Your task to perform on an android device: Search for Mexican restaurants on Maps Image 0: 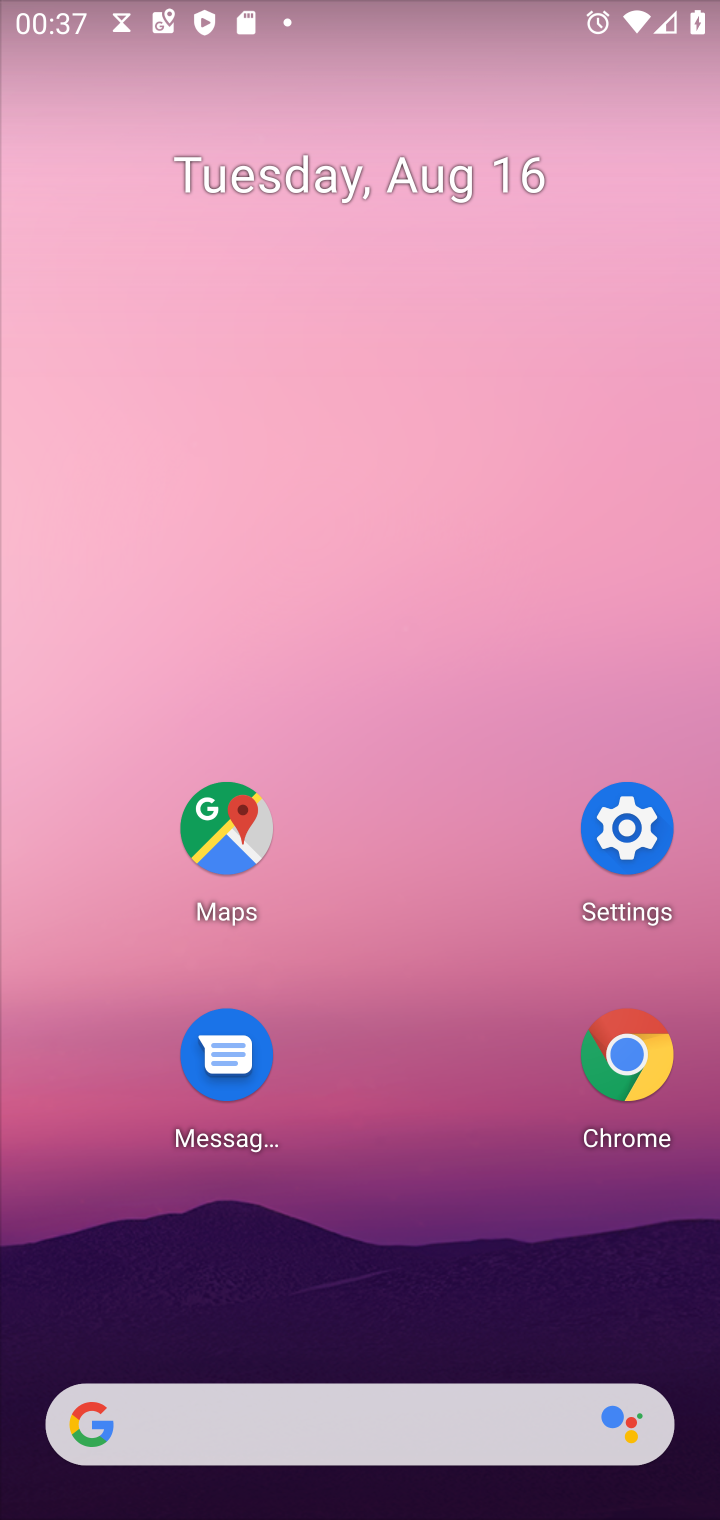
Step 0: press home button
Your task to perform on an android device: Search for Mexican restaurants on Maps Image 1: 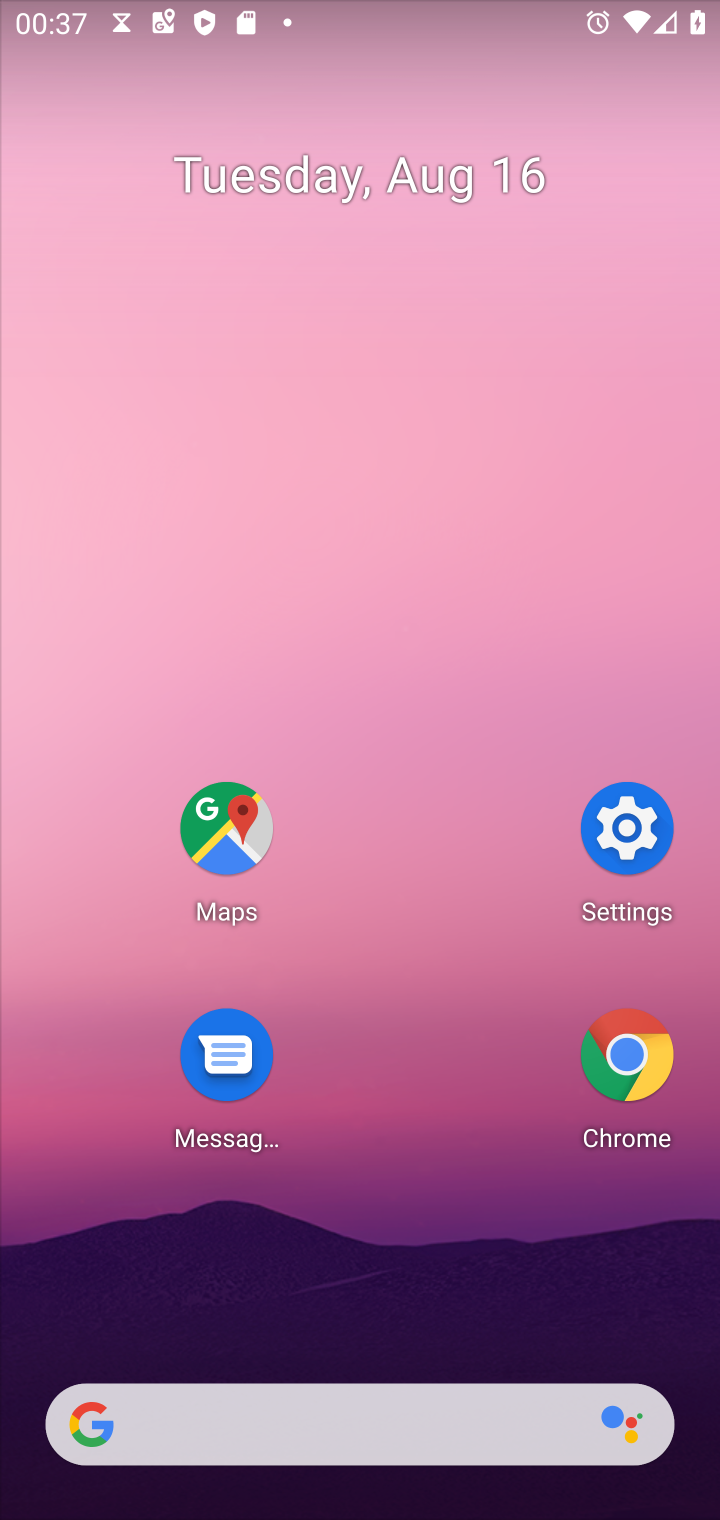
Step 1: click (227, 833)
Your task to perform on an android device: Search for Mexican restaurants on Maps Image 2: 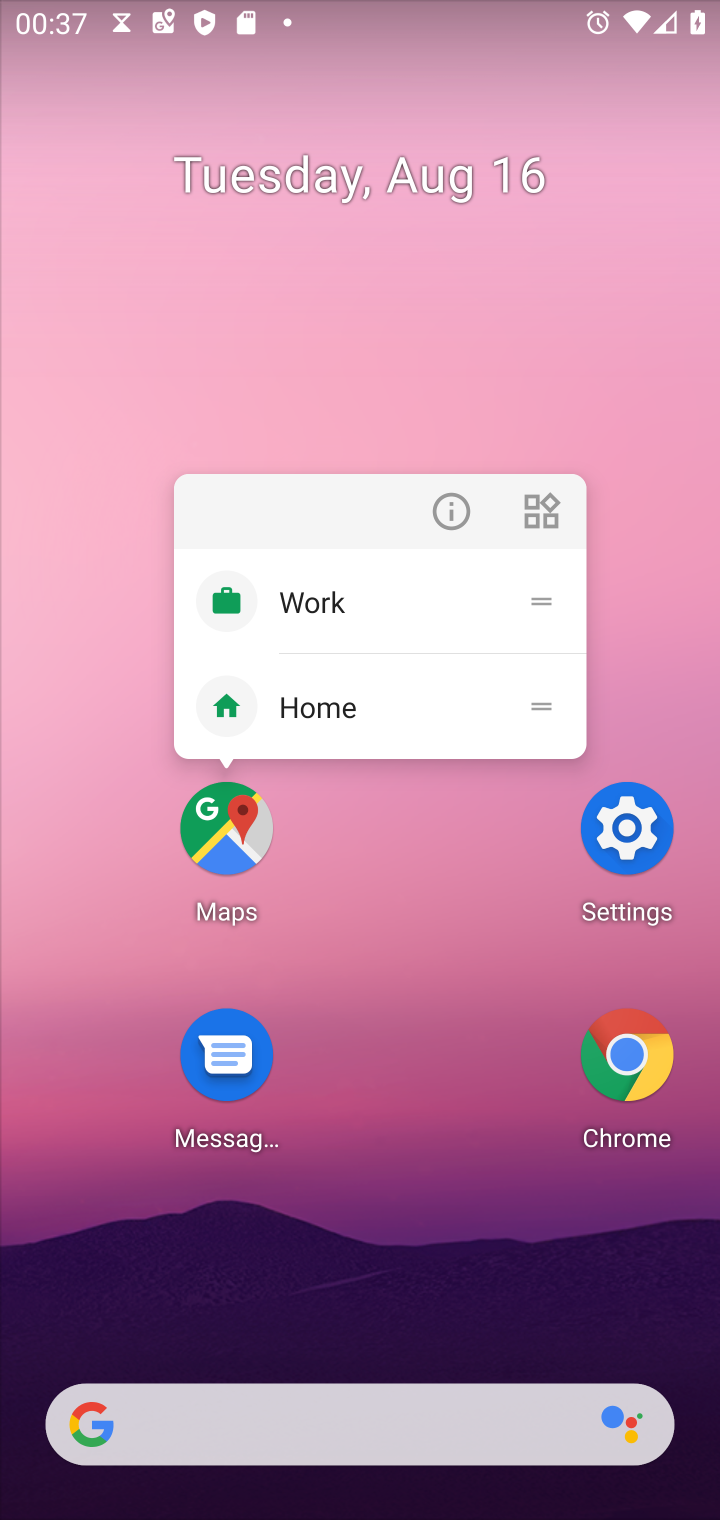
Step 2: click (227, 837)
Your task to perform on an android device: Search for Mexican restaurants on Maps Image 3: 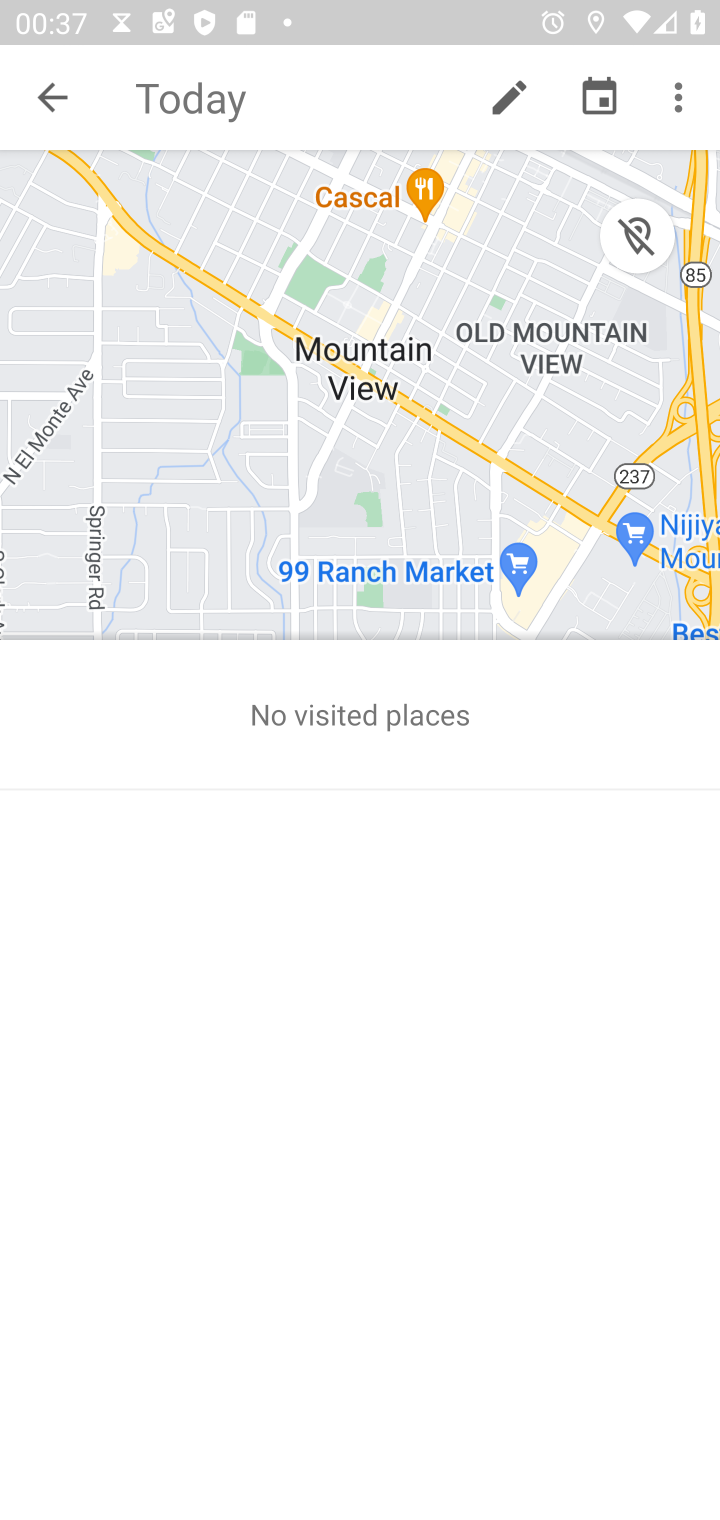
Step 3: press back button
Your task to perform on an android device: Search for Mexican restaurants on Maps Image 4: 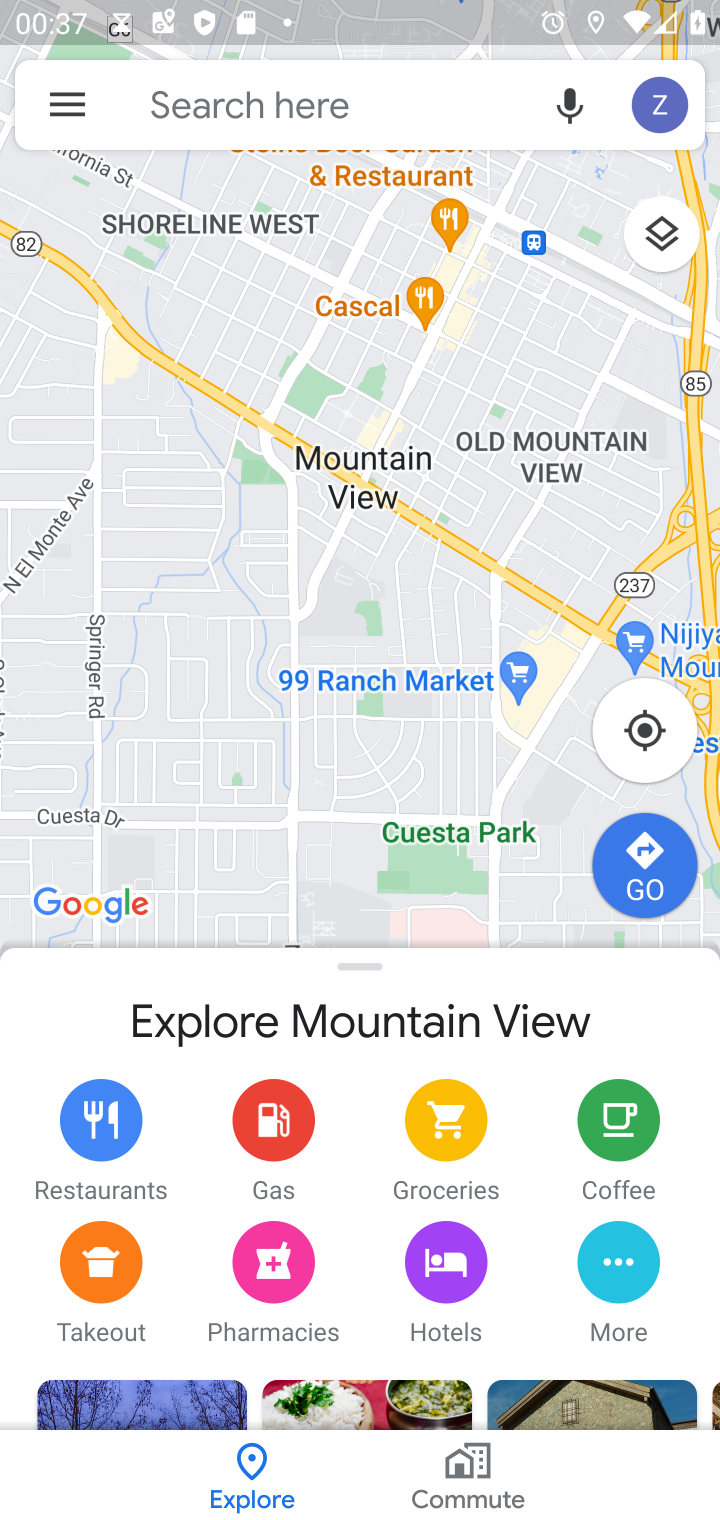
Step 4: click (353, 108)
Your task to perform on an android device: Search for Mexican restaurants on Maps Image 5: 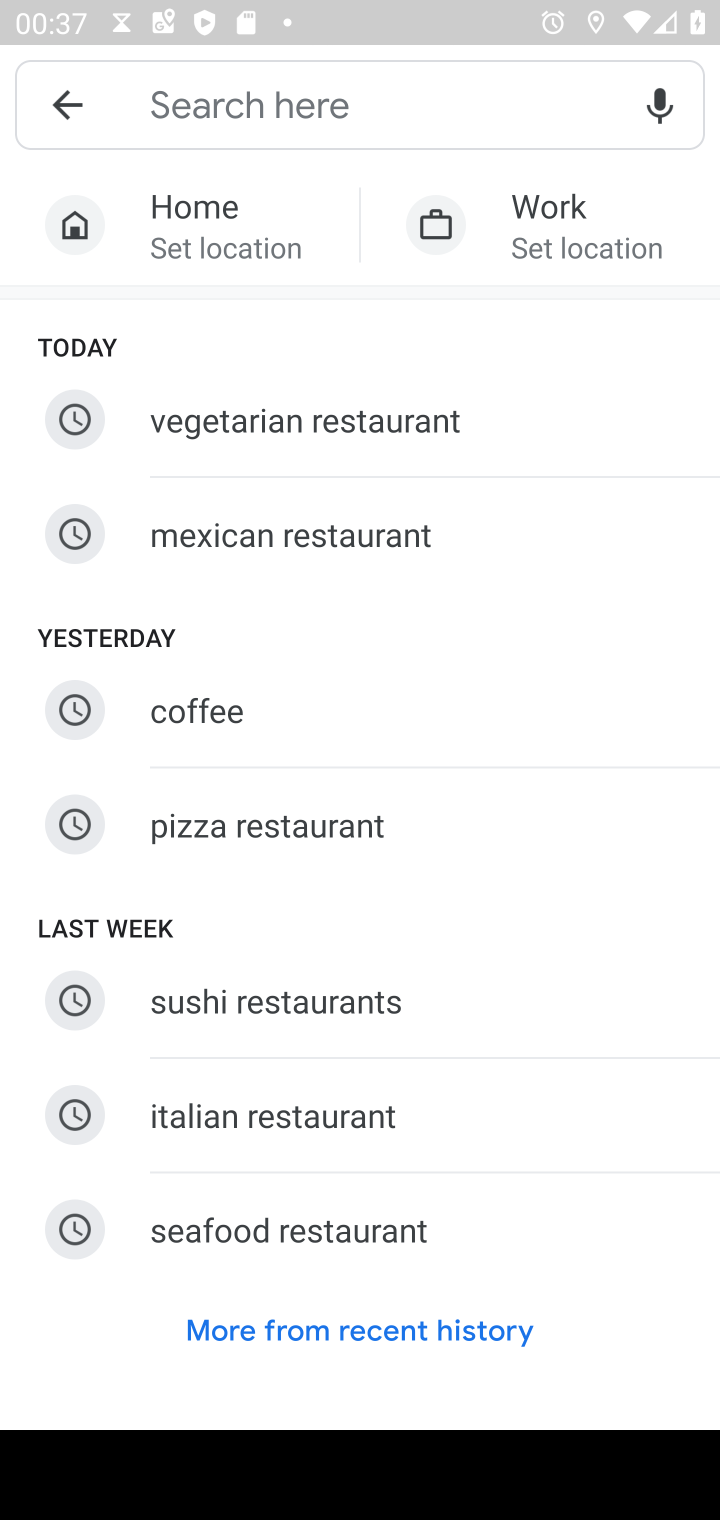
Step 5: click (339, 536)
Your task to perform on an android device: Search for Mexican restaurants on Maps Image 6: 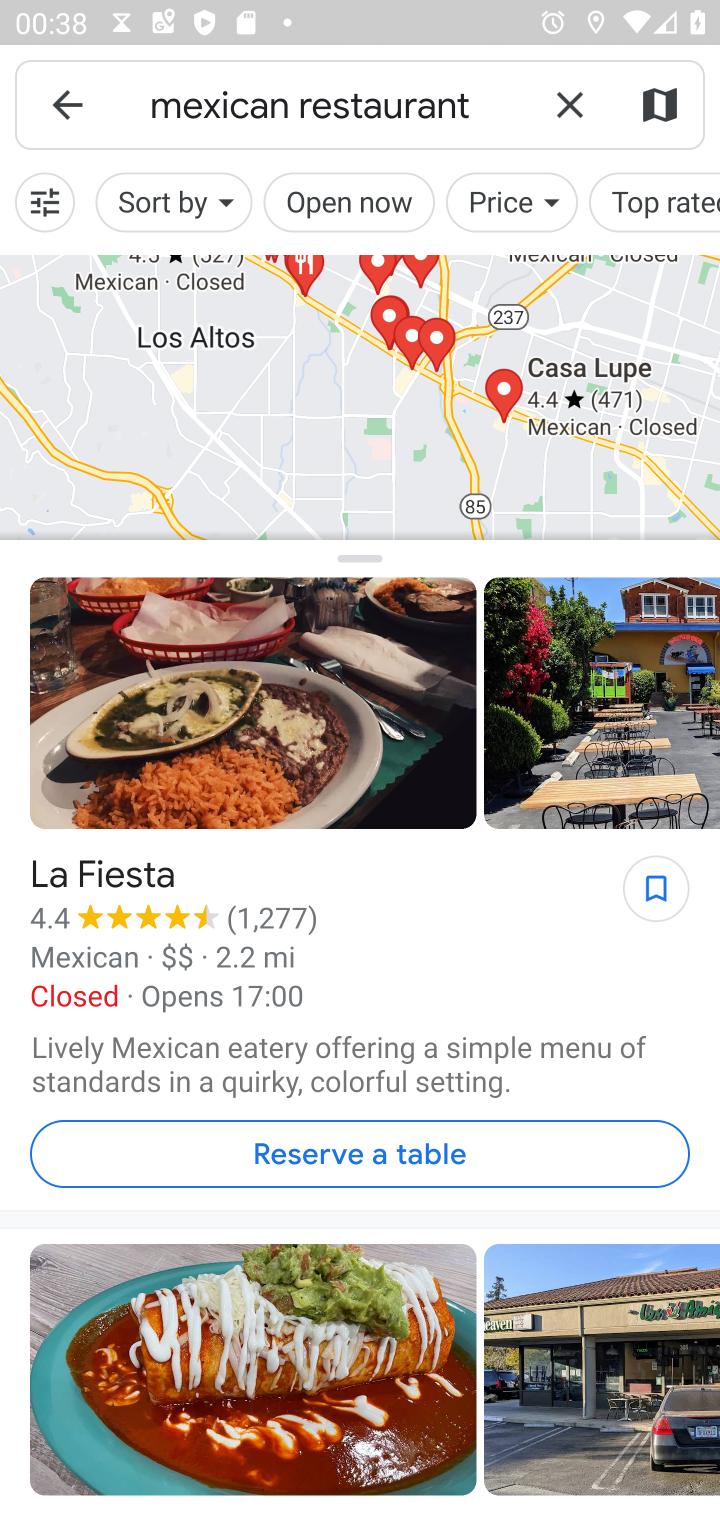
Step 6: task complete